Your task to perform on an android device: Search for sushi restaurants on Maps Image 0: 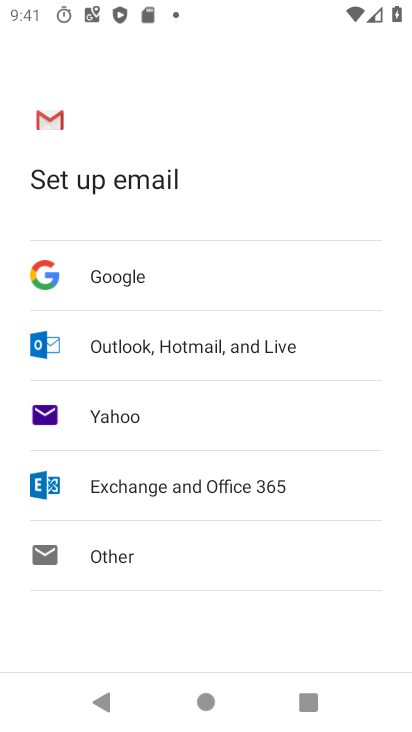
Step 0: press home button
Your task to perform on an android device: Search for sushi restaurants on Maps Image 1: 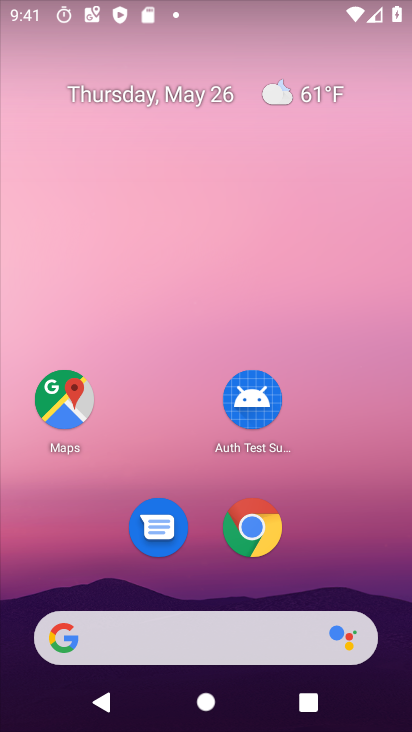
Step 1: drag from (330, 563) to (340, 8)
Your task to perform on an android device: Search for sushi restaurants on Maps Image 2: 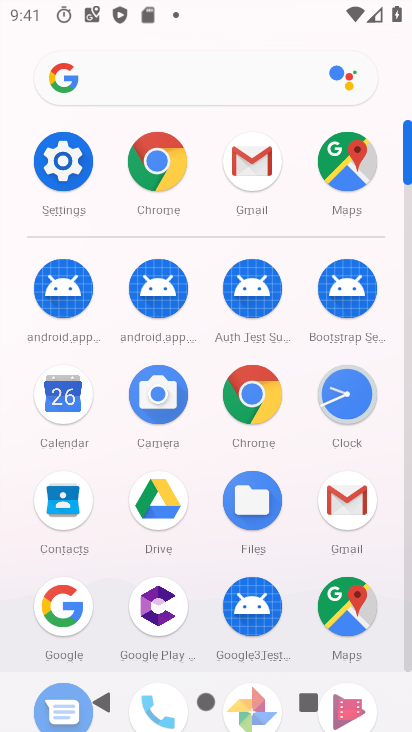
Step 2: click (367, 183)
Your task to perform on an android device: Search for sushi restaurants on Maps Image 3: 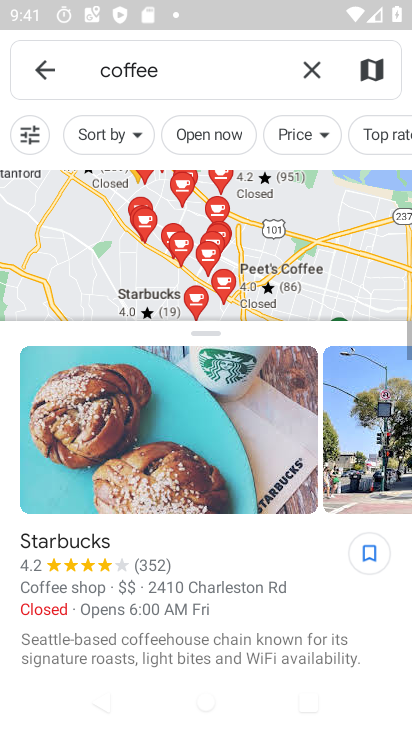
Step 3: click (313, 61)
Your task to perform on an android device: Search for sushi restaurants on Maps Image 4: 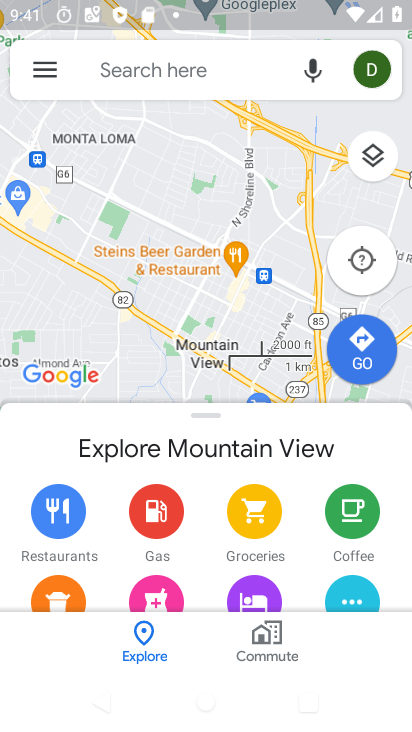
Step 4: click (168, 43)
Your task to perform on an android device: Search for sushi restaurants on Maps Image 5: 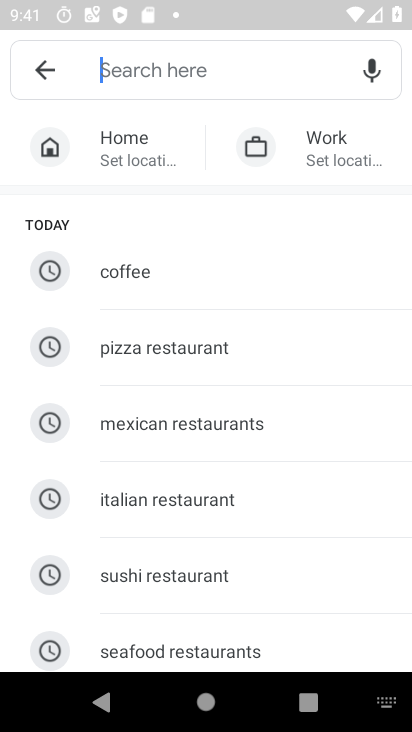
Step 5: click (226, 577)
Your task to perform on an android device: Search for sushi restaurants on Maps Image 6: 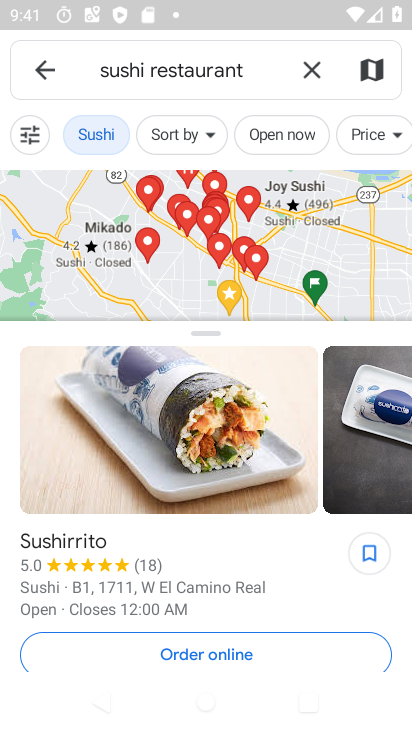
Step 6: task complete